Your task to perform on an android device: set an alarm Image 0: 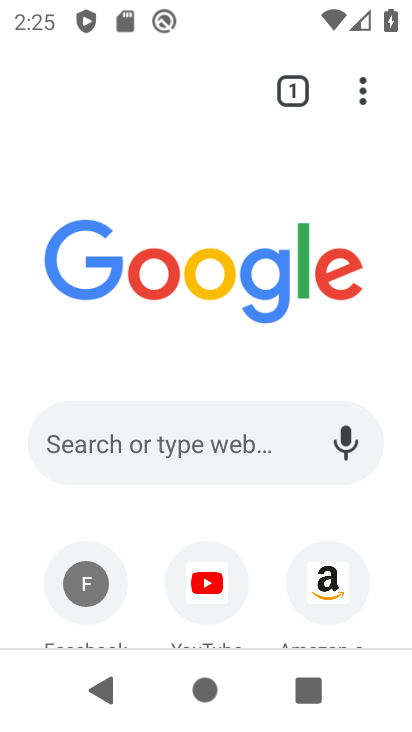
Step 0: press home button
Your task to perform on an android device: set an alarm Image 1: 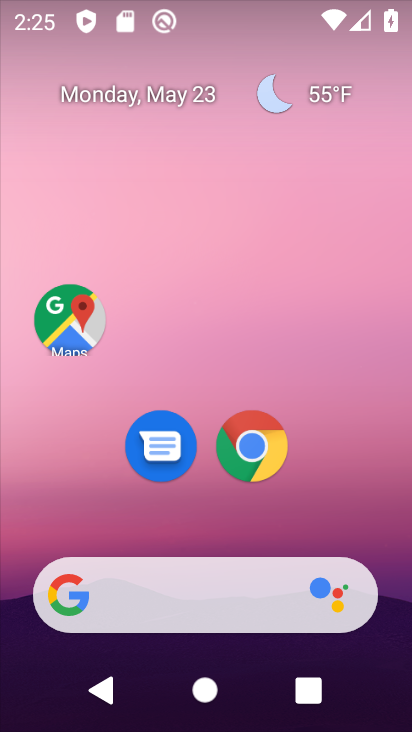
Step 1: drag from (218, 528) to (202, 216)
Your task to perform on an android device: set an alarm Image 2: 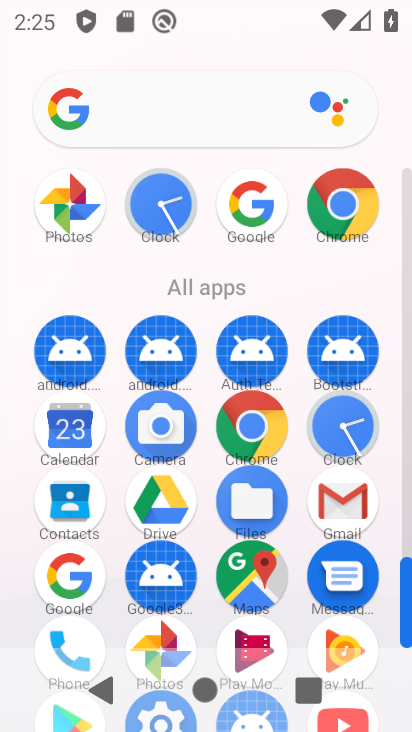
Step 2: drag from (194, 537) to (197, 255)
Your task to perform on an android device: set an alarm Image 3: 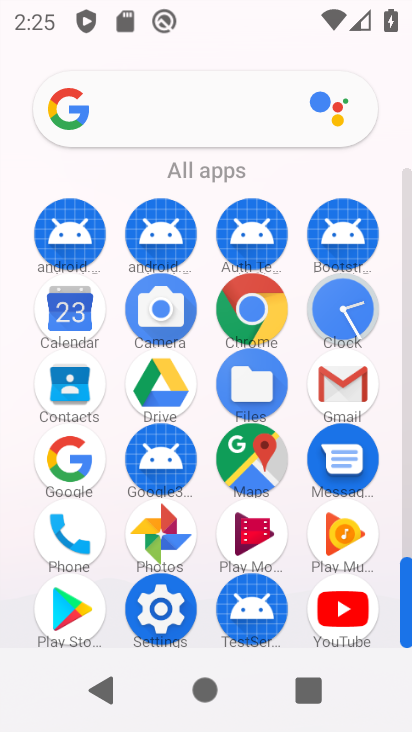
Step 3: click (356, 303)
Your task to perform on an android device: set an alarm Image 4: 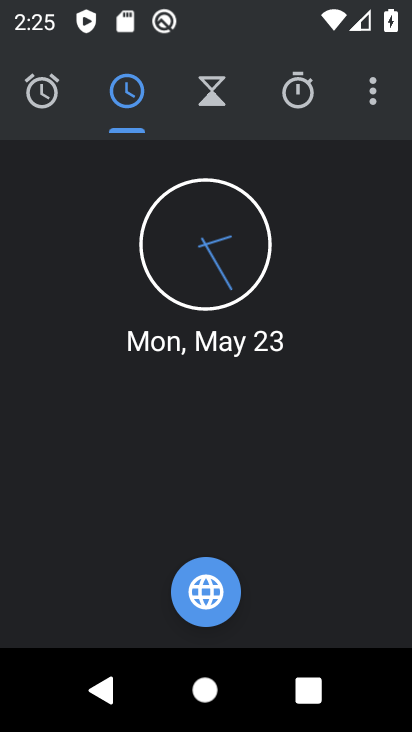
Step 4: click (49, 101)
Your task to perform on an android device: set an alarm Image 5: 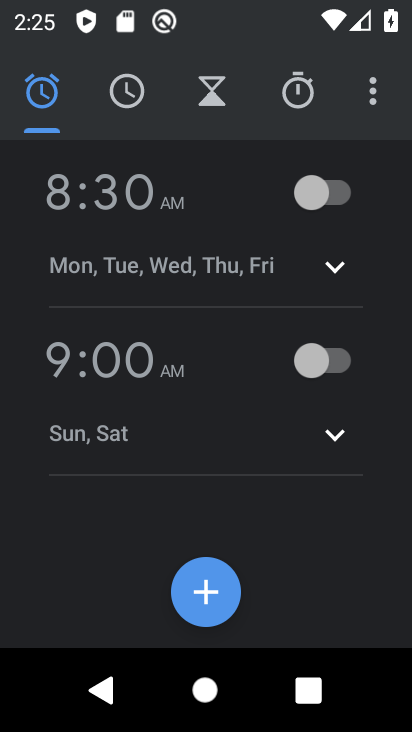
Step 5: click (352, 188)
Your task to perform on an android device: set an alarm Image 6: 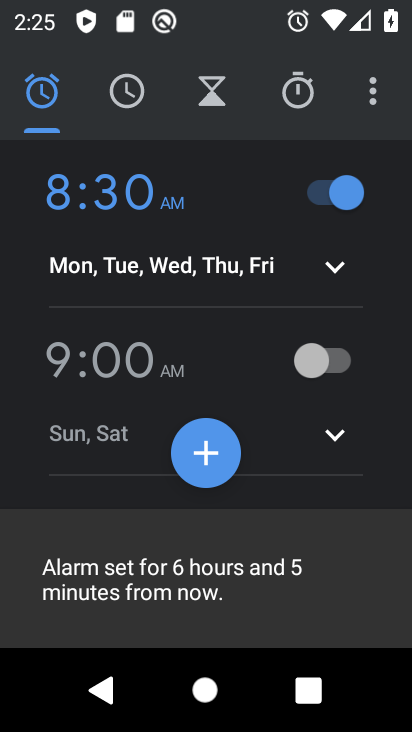
Step 6: task complete